Your task to perform on an android device: turn on airplane mode Image 0: 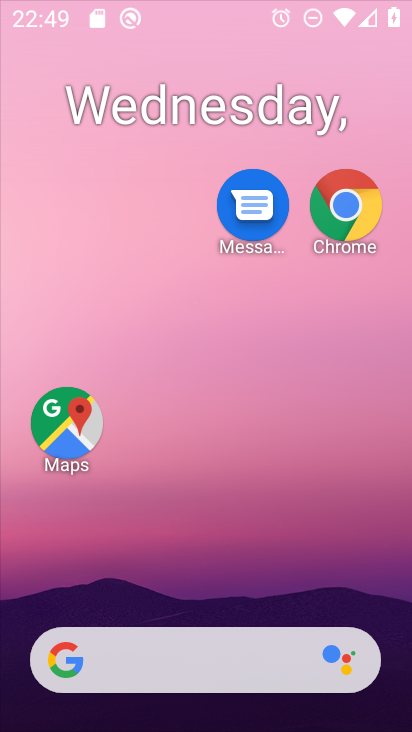
Step 0: click (237, 141)
Your task to perform on an android device: turn on airplane mode Image 1: 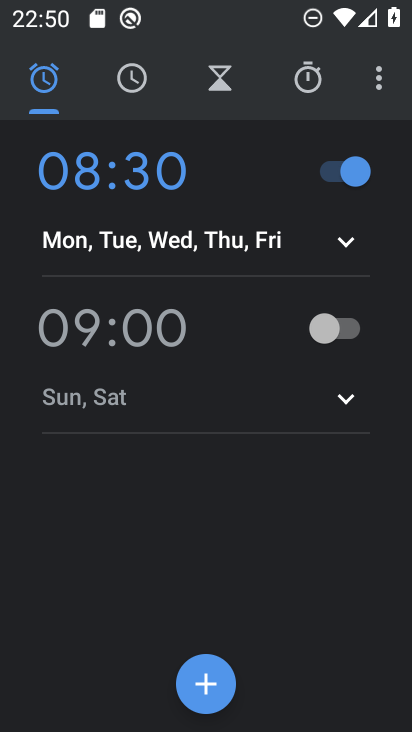
Step 1: press home button
Your task to perform on an android device: turn on airplane mode Image 2: 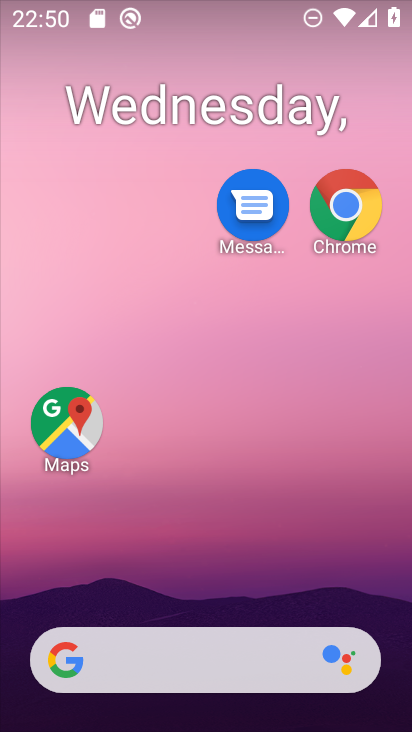
Step 2: drag from (222, 475) to (314, 19)
Your task to perform on an android device: turn on airplane mode Image 3: 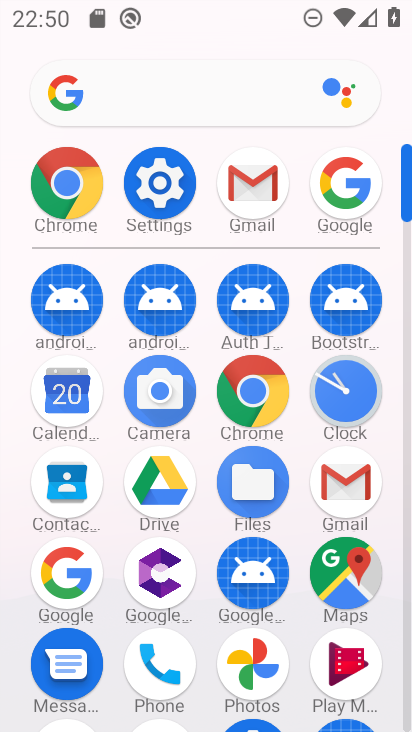
Step 3: click (159, 186)
Your task to perform on an android device: turn on airplane mode Image 4: 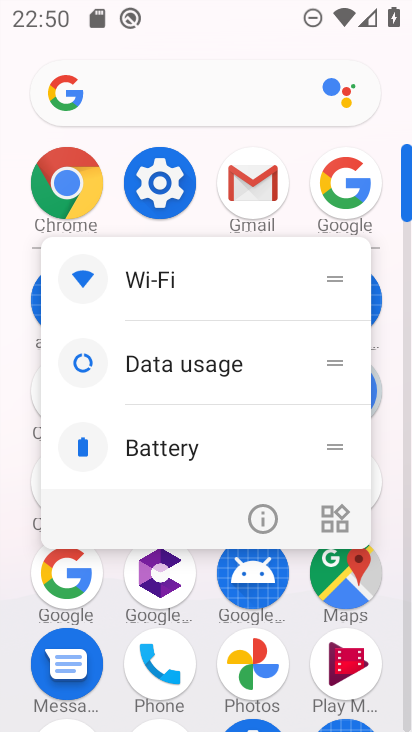
Step 4: click (268, 502)
Your task to perform on an android device: turn on airplane mode Image 5: 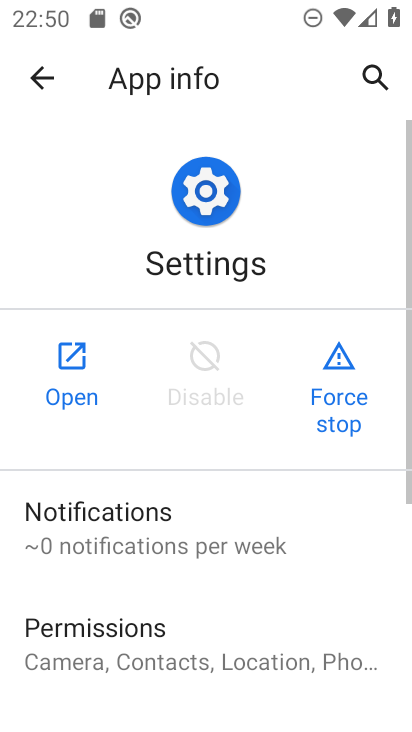
Step 5: click (64, 385)
Your task to perform on an android device: turn on airplane mode Image 6: 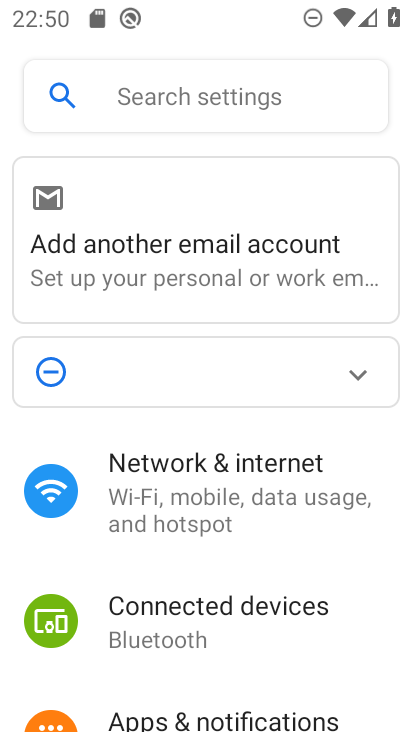
Step 6: click (196, 530)
Your task to perform on an android device: turn on airplane mode Image 7: 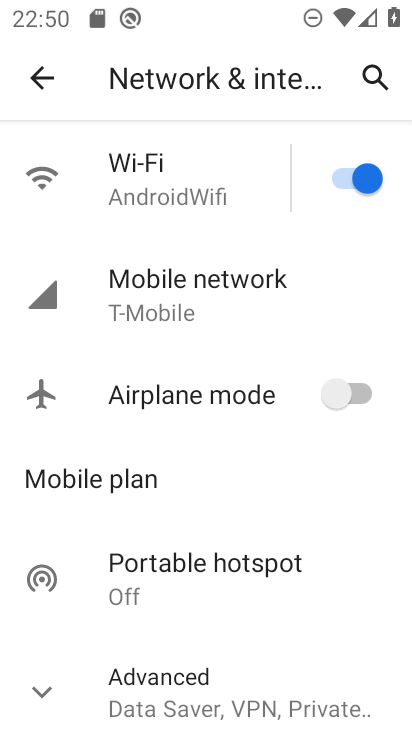
Step 7: click (224, 401)
Your task to perform on an android device: turn on airplane mode Image 8: 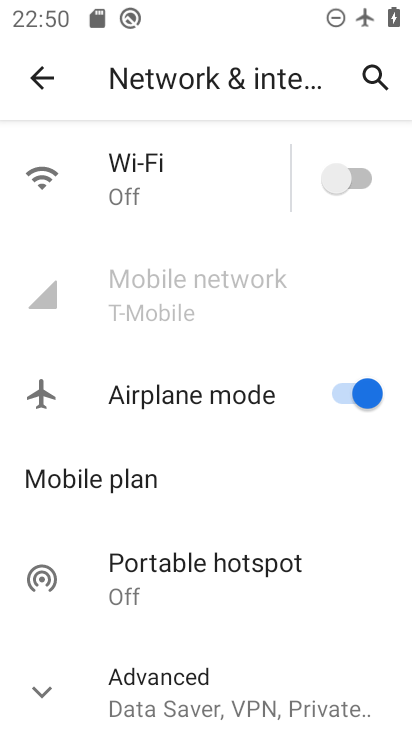
Step 8: task complete